Your task to perform on an android device: Go to accessibility settings Image 0: 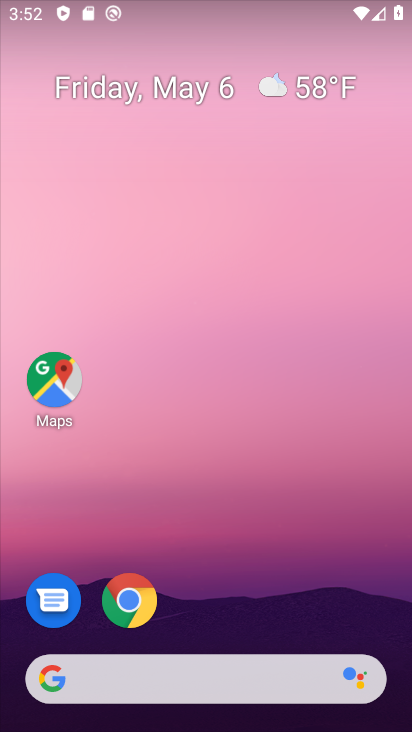
Step 0: drag from (226, 635) to (278, 160)
Your task to perform on an android device: Go to accessibility settings Image 1: 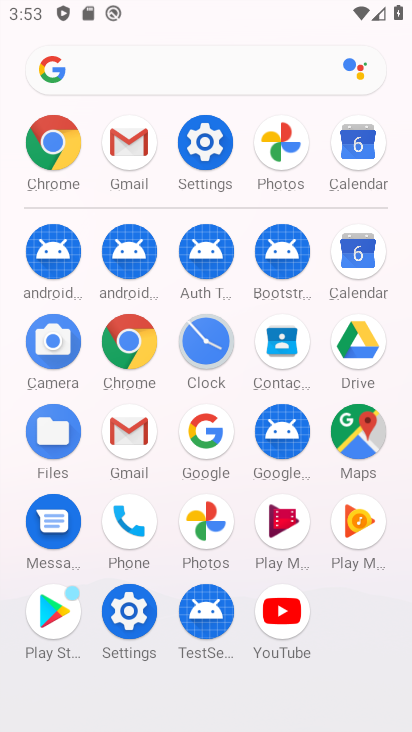
Step 1: click (119, 622)
Your task to perform on an android device: Go to accessibility settings Image 2: 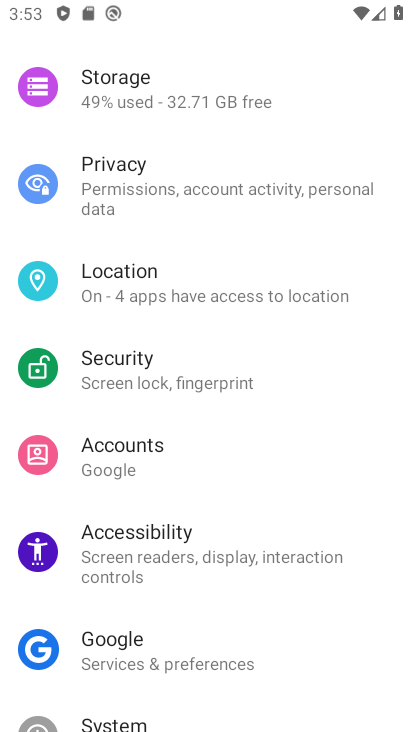
Step 2: click (133, 569)
Your task to perform on an android device: Go to accessibility settings Image 3: 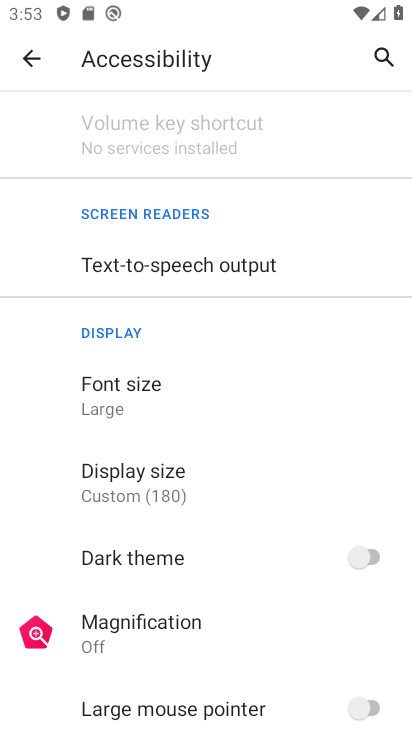
Step 3: task complete